Your task to perform on an android device: Open Google Maps Image 0: 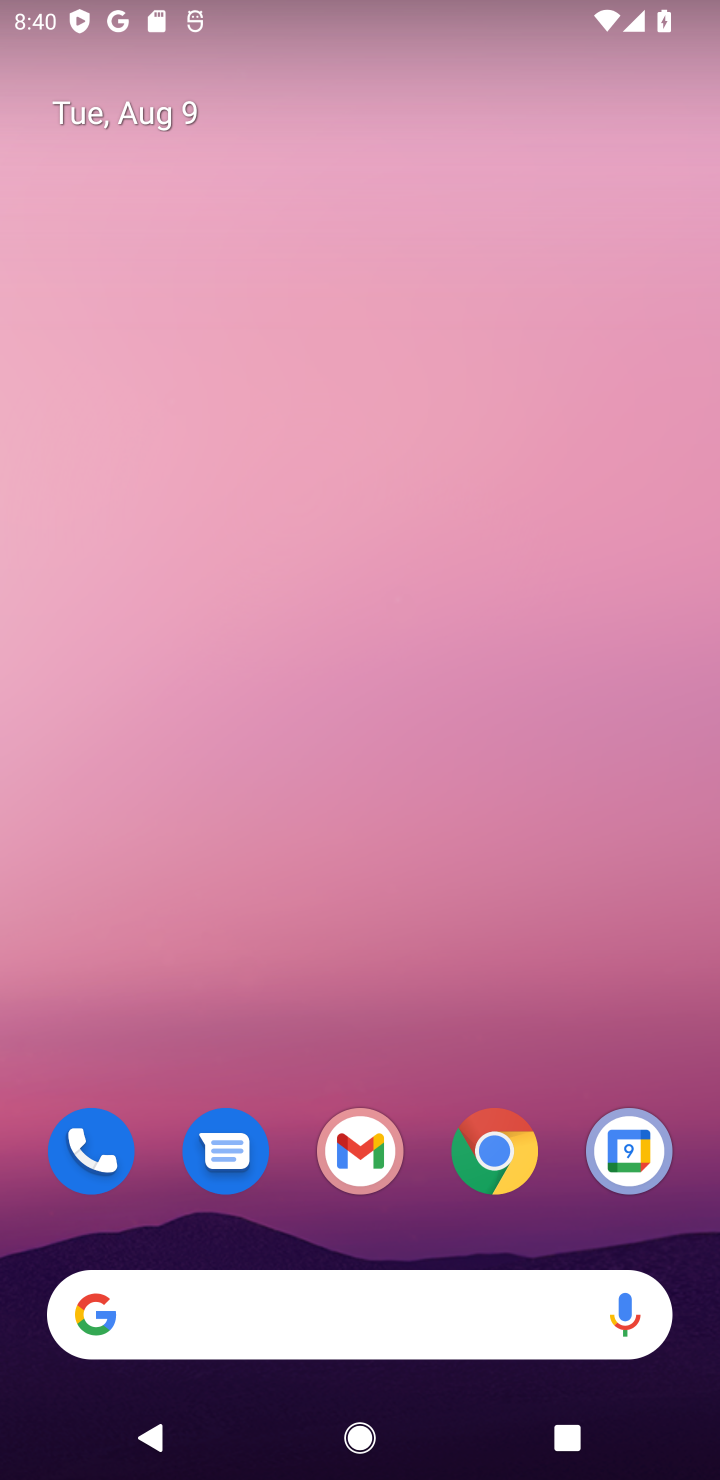
Step 0: drag from (532, 1073) to (508, 10)
Your task to perform on an android device: Open Google Maps Image 1: 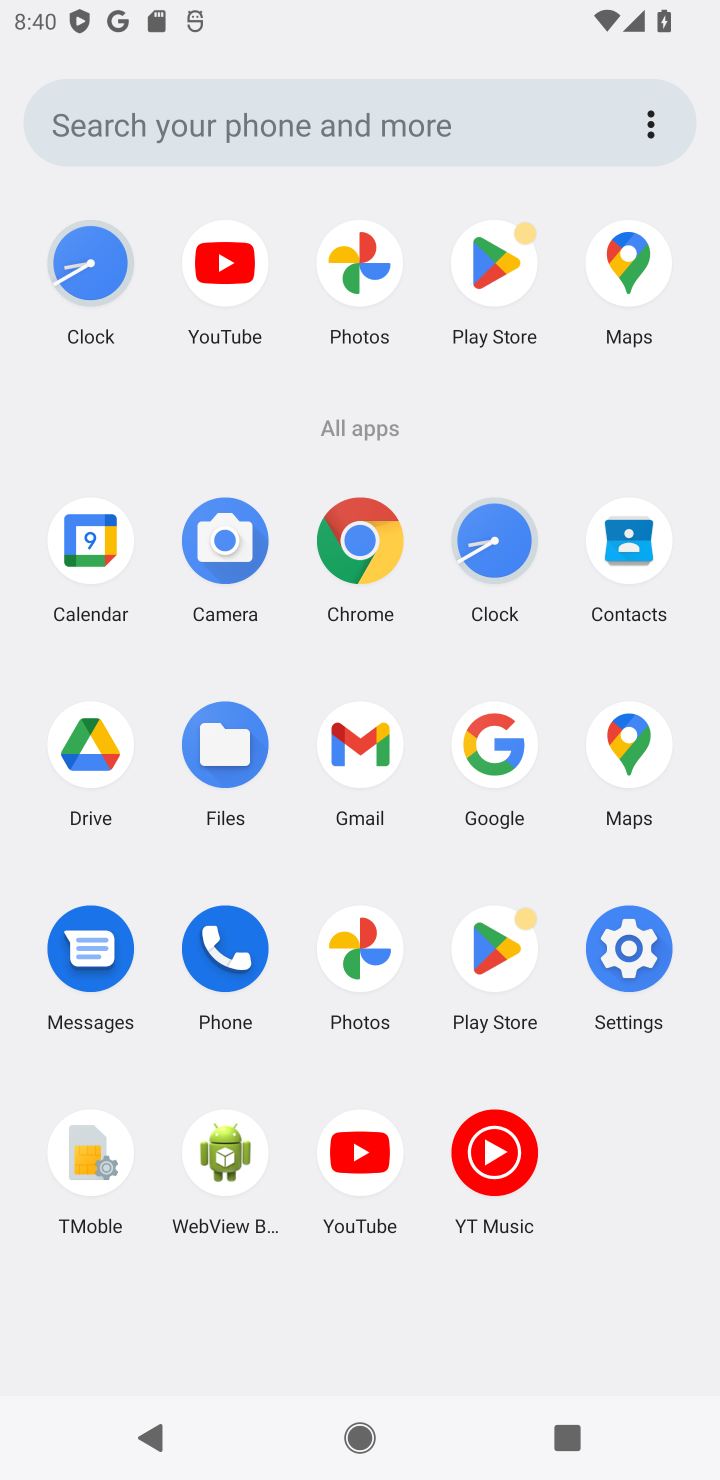
Step 1: click (624, 754)
Your task to perform on an android device: Open Google Maps Image 2: 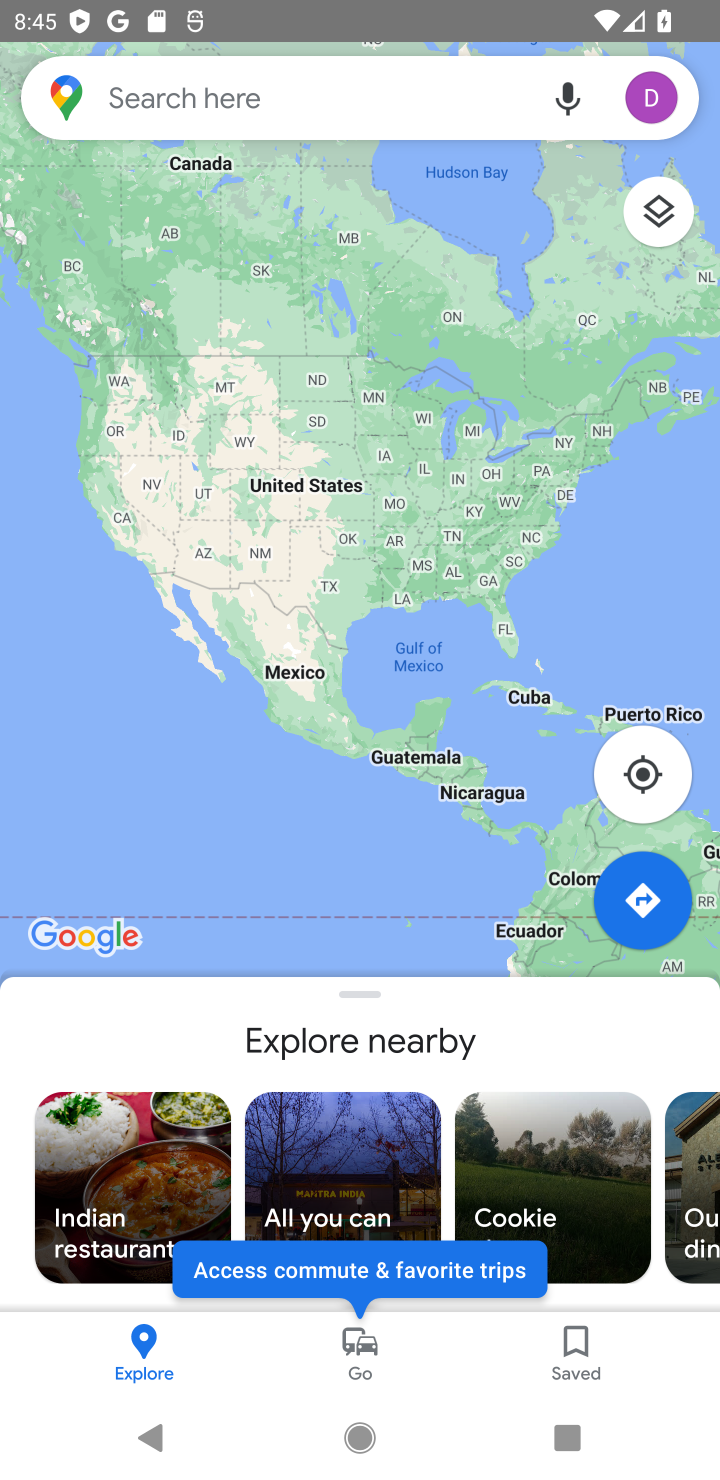
Step 2: task complete